Your task to perform on an android device: Open Yahoo.com Image 0: 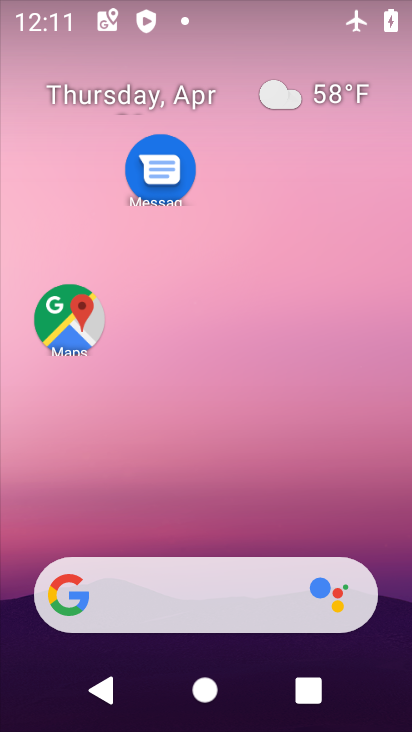
Step 0: click (137, 371)
Your task to perform on an android device: Open Yahoo.com Image 1: 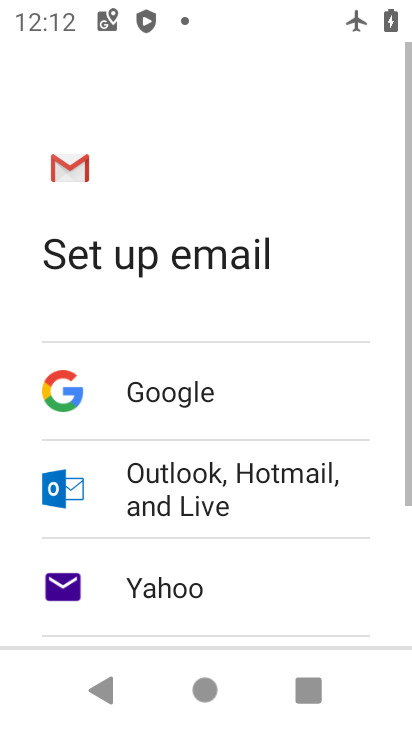
Step 1: drag from (236, 434) to (316, 190)
Your task to perform on an android device: Open Yahoo.com Image 2: 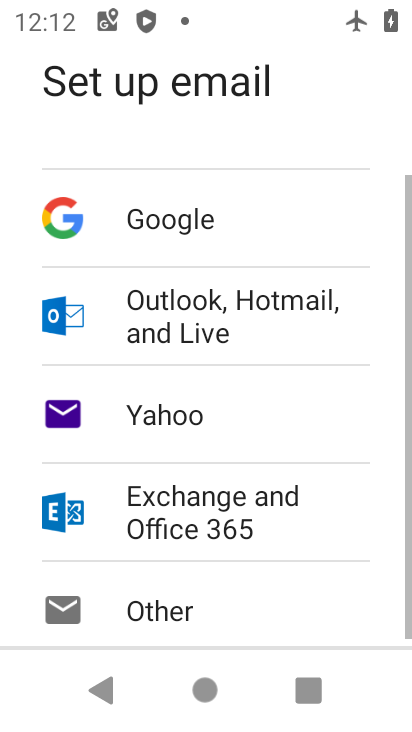
Step 2: press home button
Your task to perform on an android device: Open Yahoo.com Image 3: 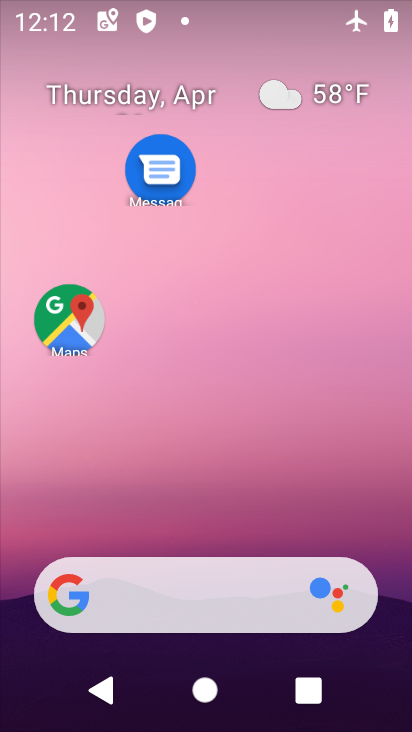
Step 3: drag from (221, 481) to (264, 40)
Your task to perform on an android device: Open Yahoo.com Image 4: 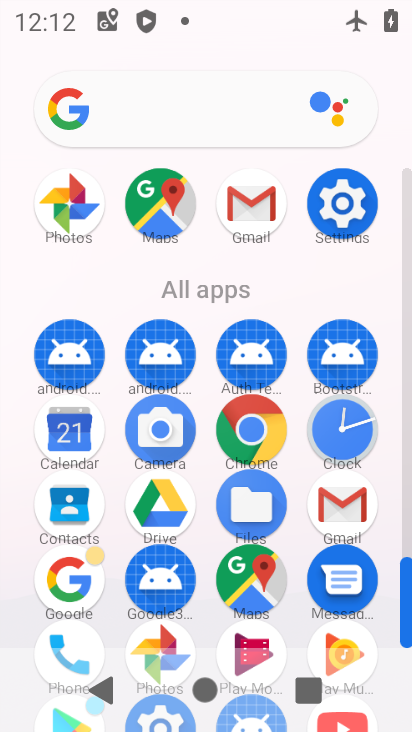
Step 4: click (247, 482)
Your task to perform on an android device: Open Yahoo.com Image 5: 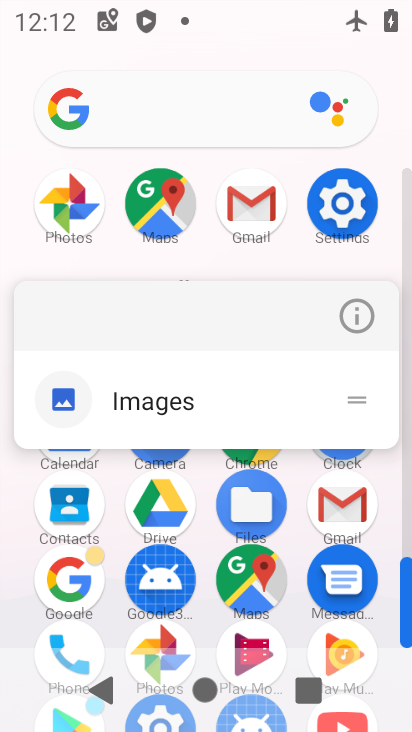
Step 5: click (380, 541)
Your task to perform on an android device: Open Yahoo.com Image 6: 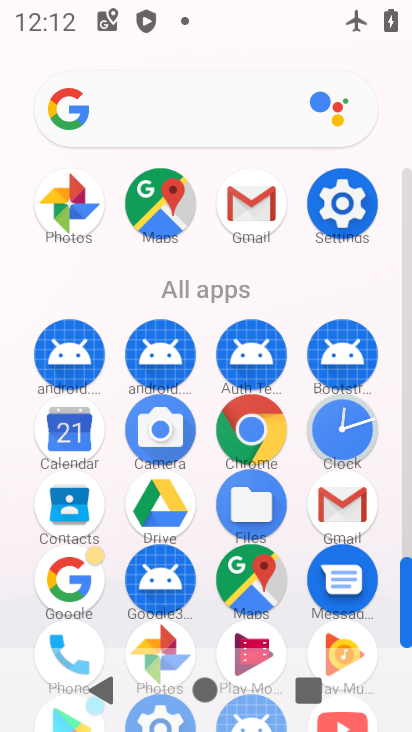
Step 6: click (251, 433)
Your task to perform on an android device: Open Yahoo.com Image 7: 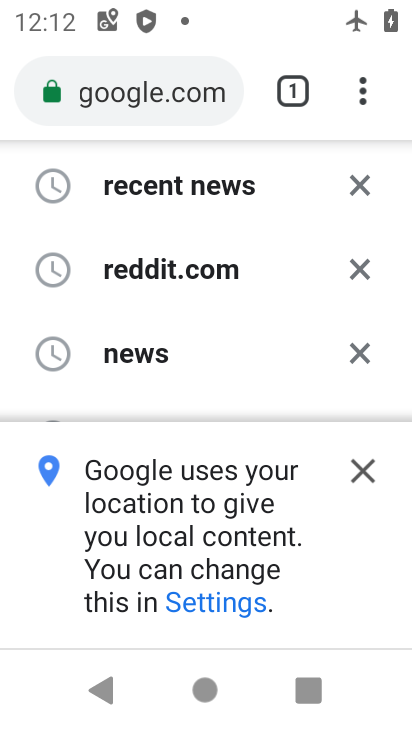
Step 7: click (184, 110)
Your task to perform on an android device: Open Yahoo.com Image 8: 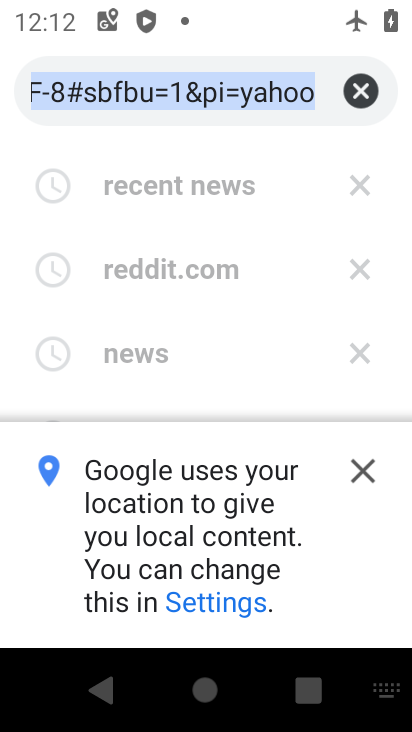
Step 8: click (364, 93)
Your task to perform on an android device: Open Yahoo.com Image 9: 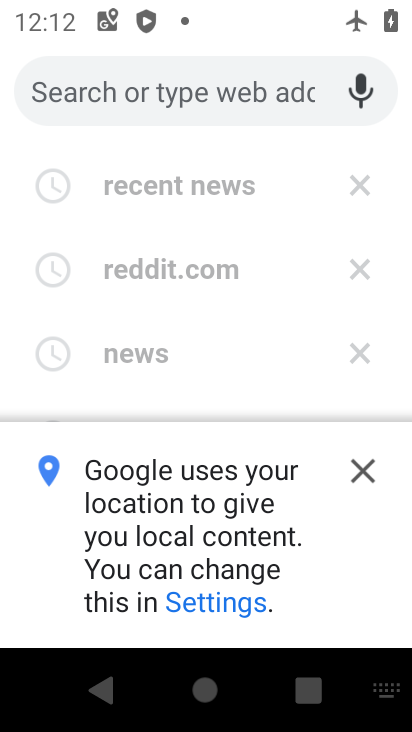
Step 9: type "yahoo"
Your task to perform on an android device: Open Yahoo.com Image 10: 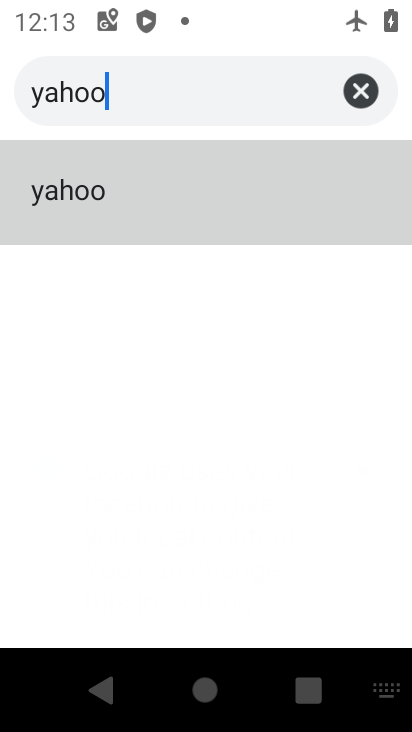
Step 10: click (104, 225)
Your task to perform on an android device: Open Yahoo.com Image 11: 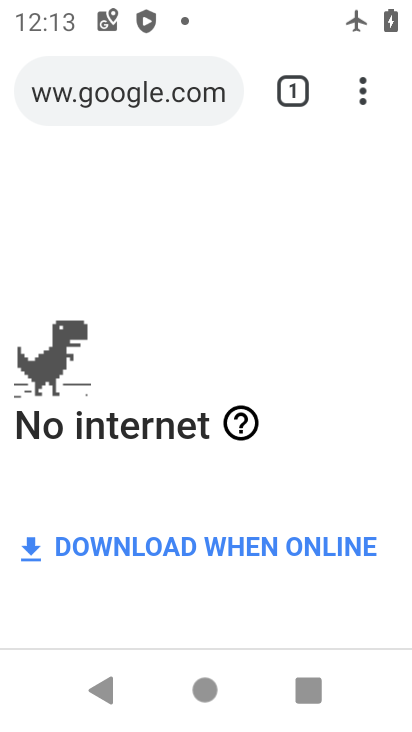
Step 11: task complete